Your task to perform on an android device: turn pop-ups on in chrome Image 0: 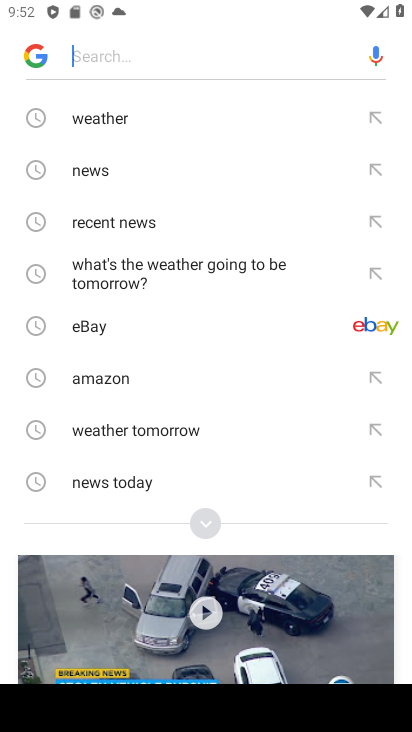
Step 0: press back button
Your task to perform on an android device: turn pop-ups on in chrome Image 1: 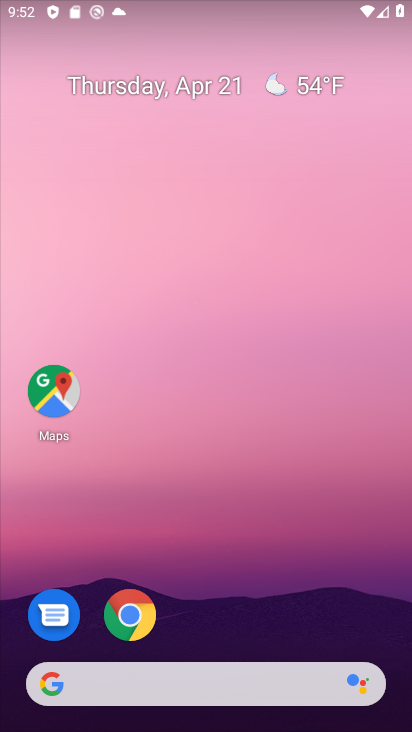
Step 1: click (144, 633)
Your task to perform on an android device: turn pop-ups on in chrome Image 2: 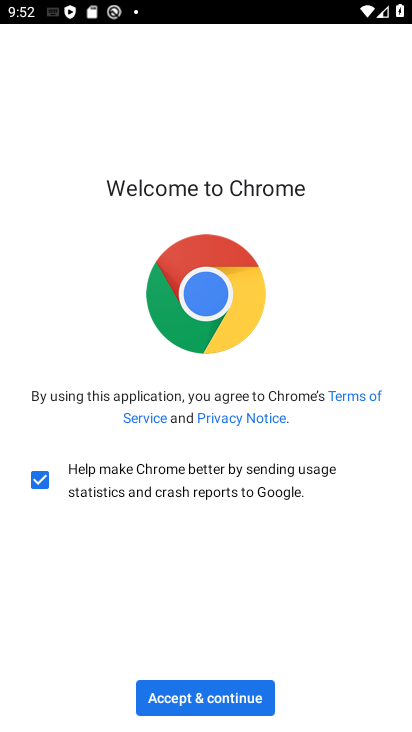
Step 2: click (210, 686)
Your task to perform on an android device: turn pop-ups on in chrome Image 3: 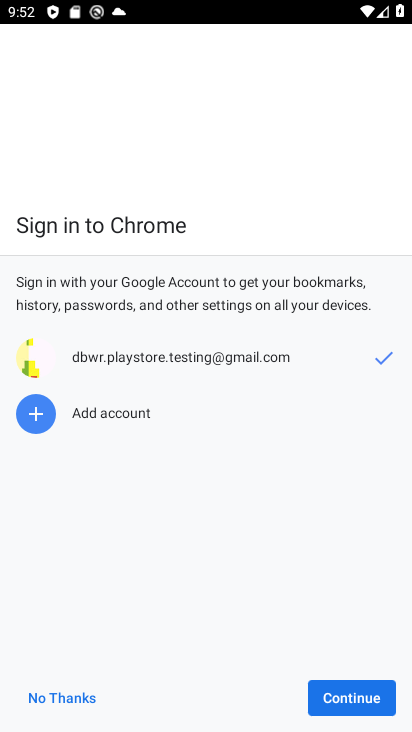
Step 3: click (343, 703)
Your task to perform on an android device: turn pop-ups on in chrome Image 4: 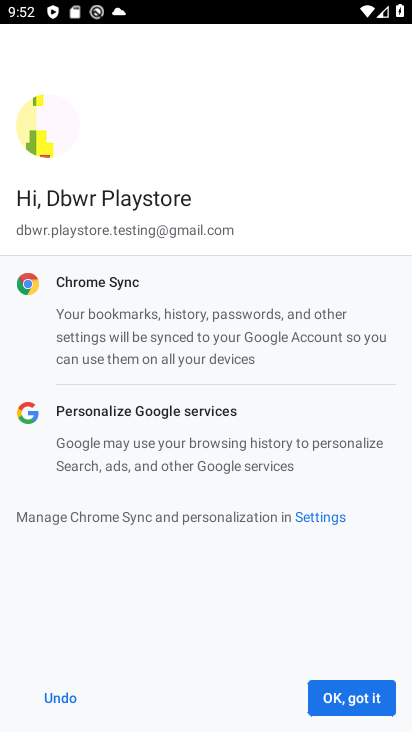
Step 4: click (343, 703)
Your task to perform on an android device: turn pop-ups on in chrome Image 5: 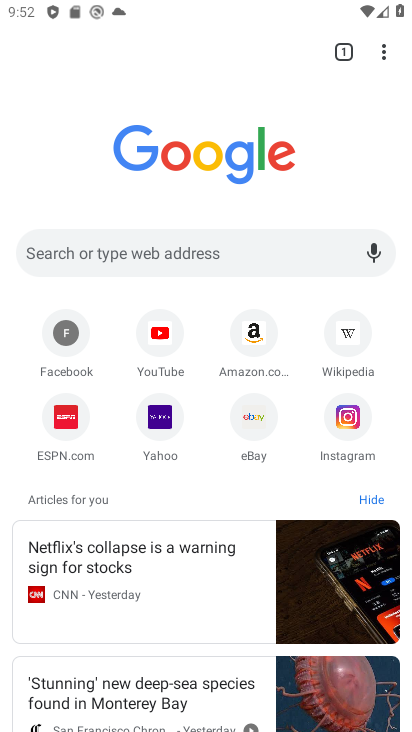
Step 5: click (384, 54)
Your task to perform on an android device: turn pop-ups on in chrome Image 6: 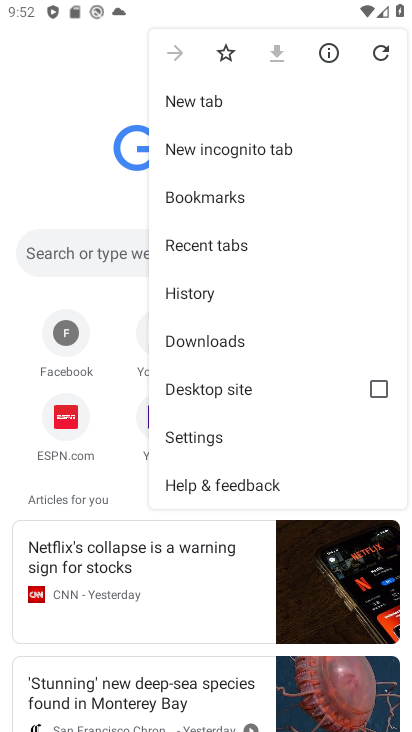
Step 6: click (225, 437)
Your task to perform on an android device: turn pop-ups on in chrome Image 7: 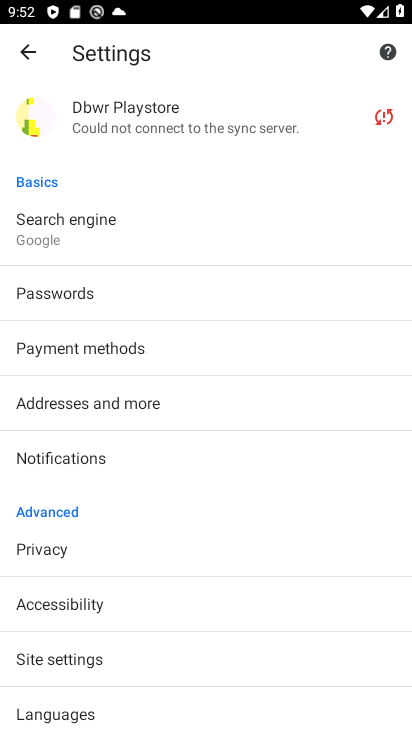
Step 7: drag from (163, 584) to (130, 283)
Your task to perform on an android device: turn pop-ups on in chrome Image 8: 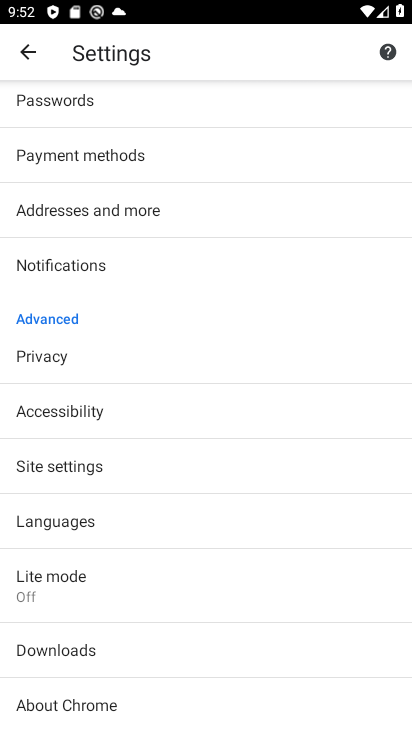
Step 8: click (88, 456)
Your task to perform on an android device: turn pop-ups on in chrome Image 9: 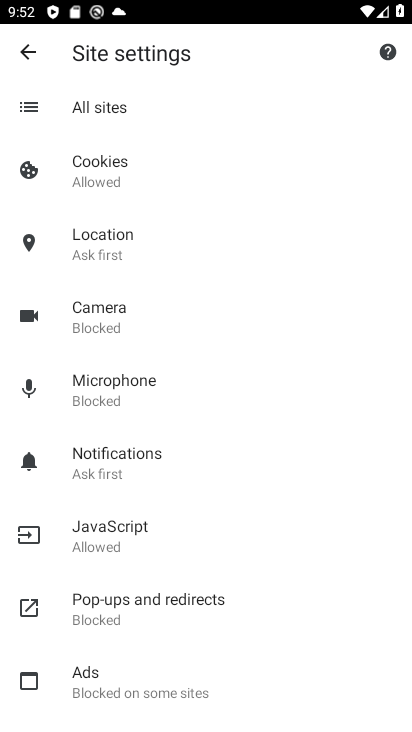
Step 9: click (134, 599)
Your task to perform on an android device: turn pop-ups on in chrome Image 10: 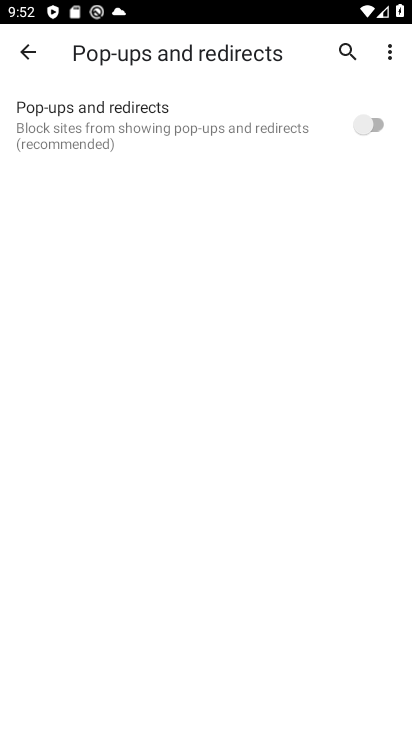
Step 10: click (354, 118)
Your task to perform on an android device: turn pop-ups on in chrome Image 11: 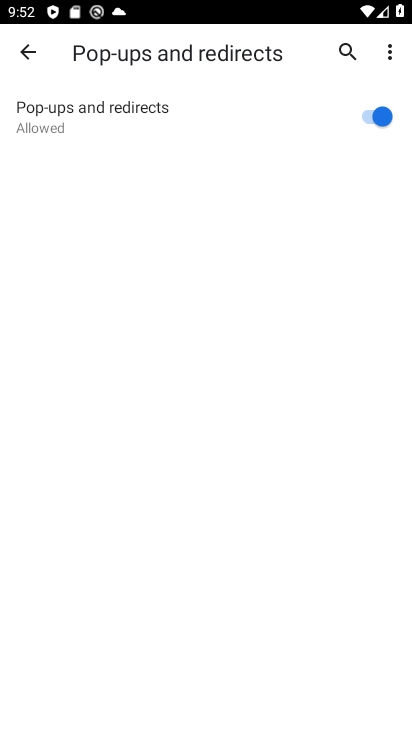
Step 11: task complete